Your task to perform on an android device: Toggle the flashlight Image 0: 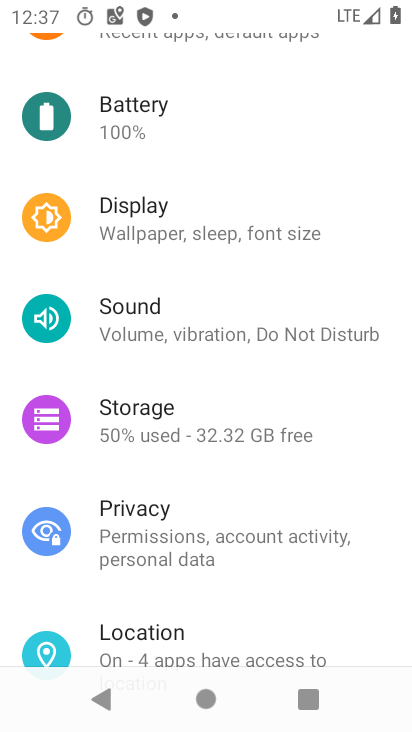
Step 0: press home button
Your task to perform on an android device: Toggle the flashlight Image 1: 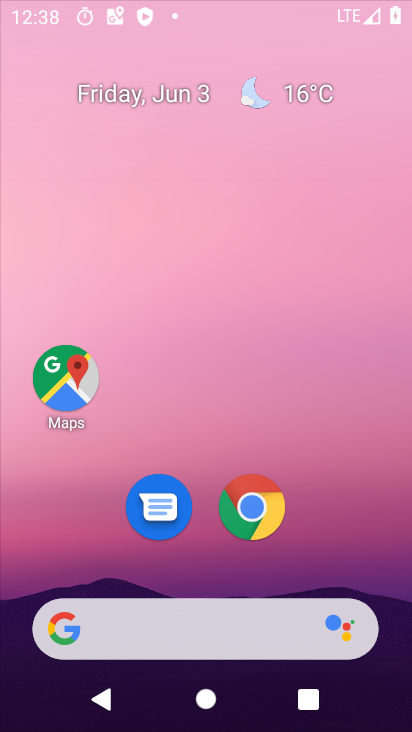
Step 1: drag from (400, 635) to (272, 25)
Your task to perform on an android device: Toggle the flashlight Image 2: 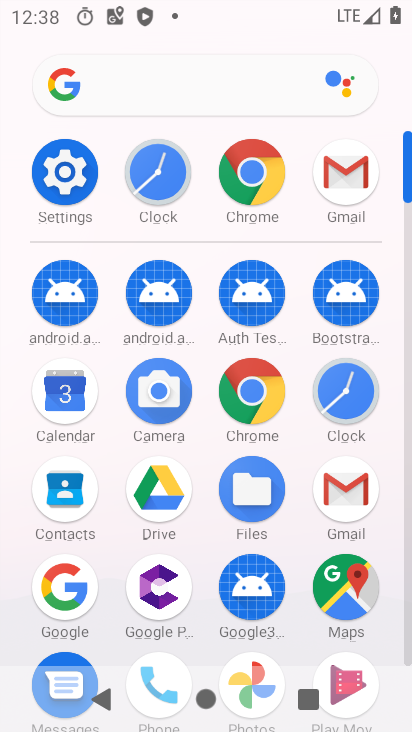
Step 2: click (72, 186)
Your task to perform on an android device: Toggle the flashlight Image 3: 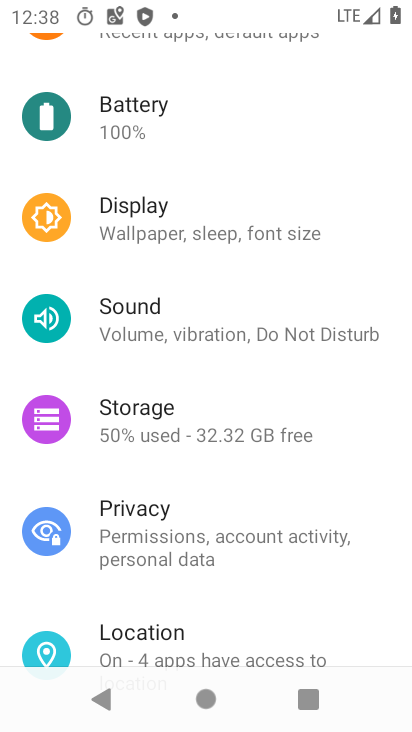
Step 3: task complete